Your task to perform on an android device: turn on showing notifications on the lock screen Image 0: 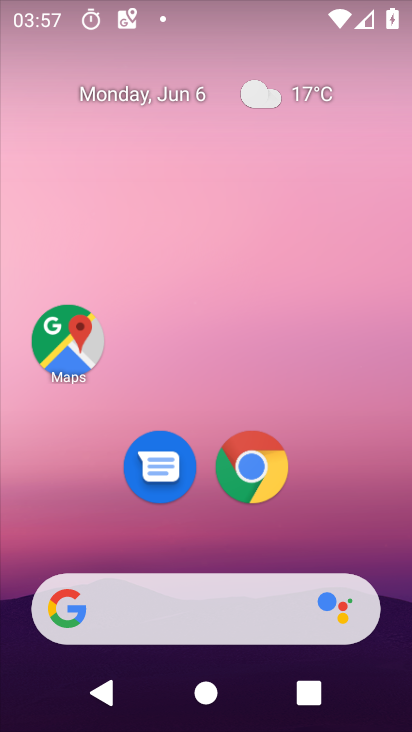
Step 0: press home button
Your task to perform on an android device: turn on showing notifications on the lock screen Image 1: 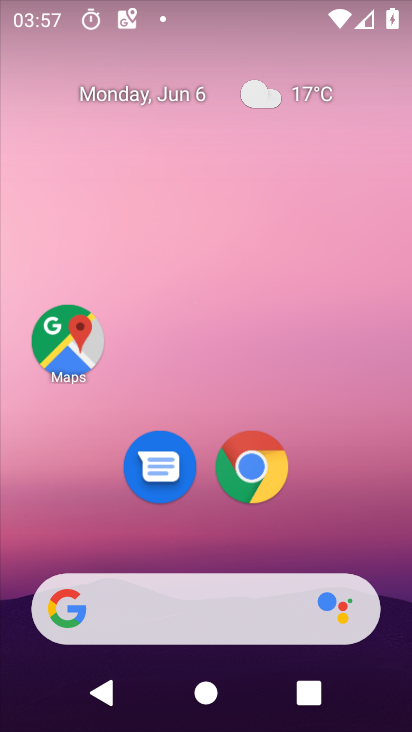
Step 1: drag from (205, 541) to (235, 21)
Your task to perform on an android device: turn on showing notifications on the lock screen Image 2: 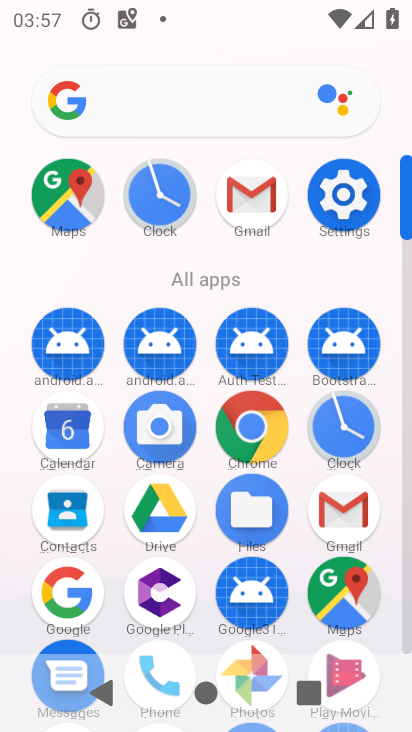
Step 2: click (342, 188)
Your task to perform on an android device: turn on showing notifications on the lock screen Image 3: 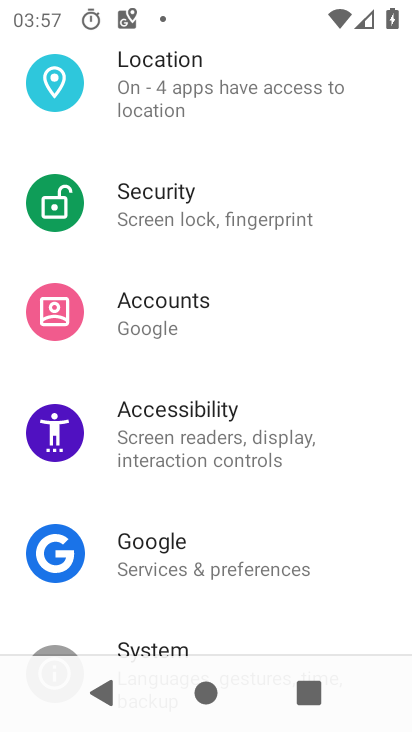
Step 3: drag from (219, 123) to (228, 632)
Your task to perform on an android device: turn on showing notifications on the lock screen Image 4: 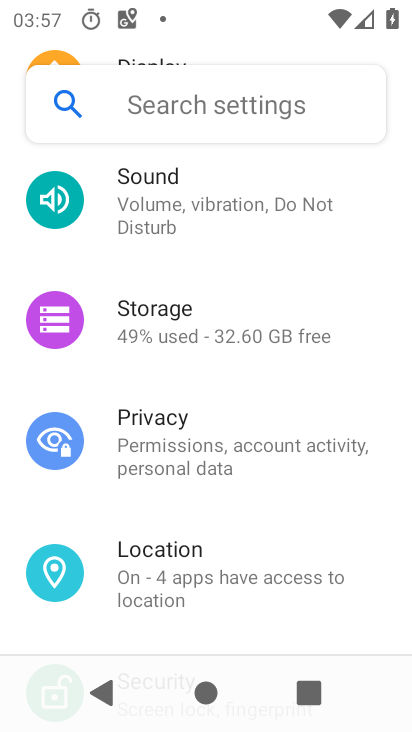
Step 4: drag from (201, 261) to (222, 553)
Your task to perform on an android device: turn on showing notifications on the lock screen Image 5: 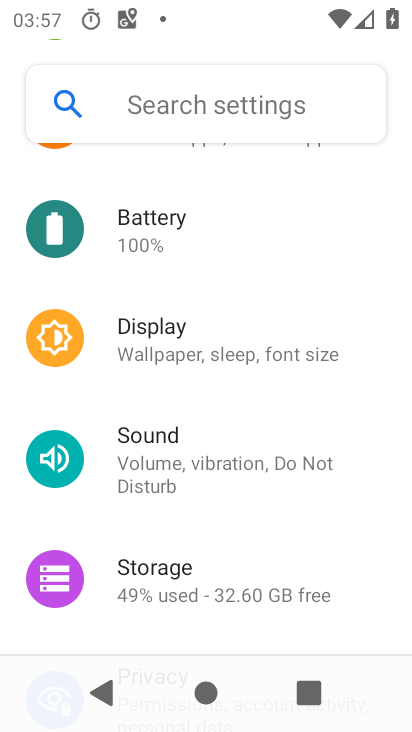
Step 5: drag from (188, 236) to (227, 528)
Your task to perform on an android device: turn on showing notifications on the lock screen Image 6: 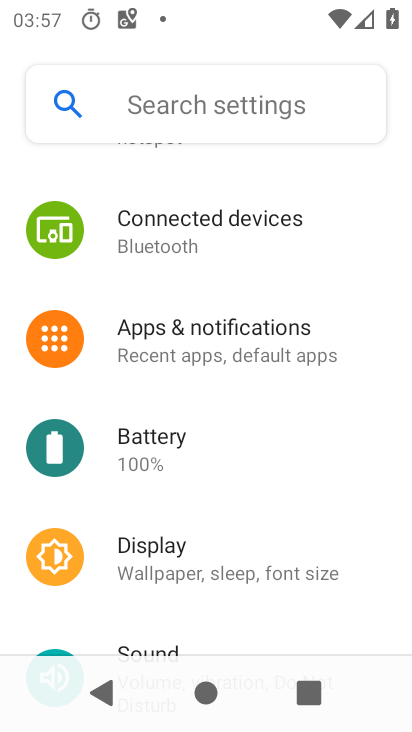
Step 6: click (231, 335)
Your task to perform on an android device: turn on showing notifications on the lock screen Image 7: 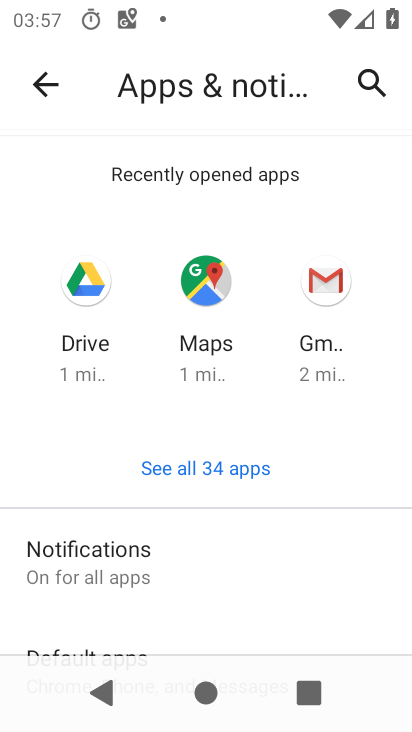
Step 7: click (175, 556)
Your task to perform on an android device: turn on showing notifications on the lock screen Image 8: 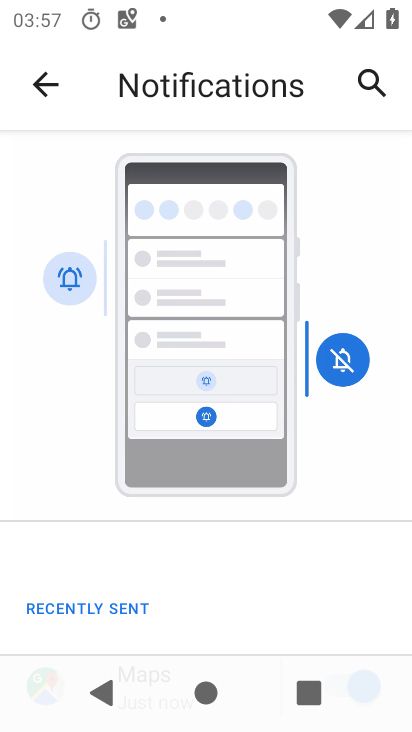
Step 8: drag from (216, 597) to (256, 237)
Your task to perform on an android device: turn on showing notifications on the lock screen Image 9: 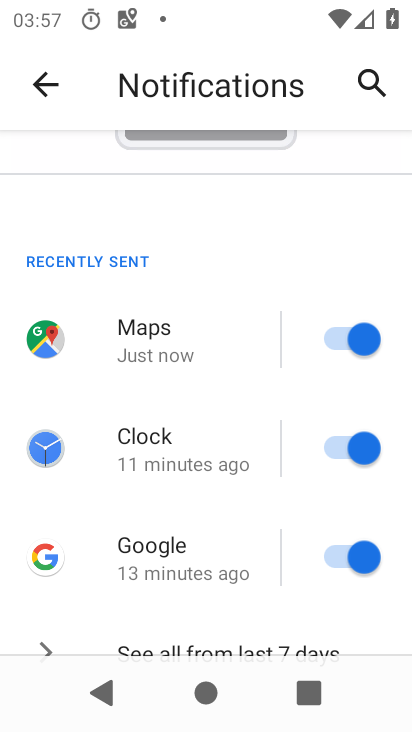
Step 9: drag from (240, 624) to (281, 207)
Your task to perform on an android device: turn on showing notifications on the lock screen Image 10: 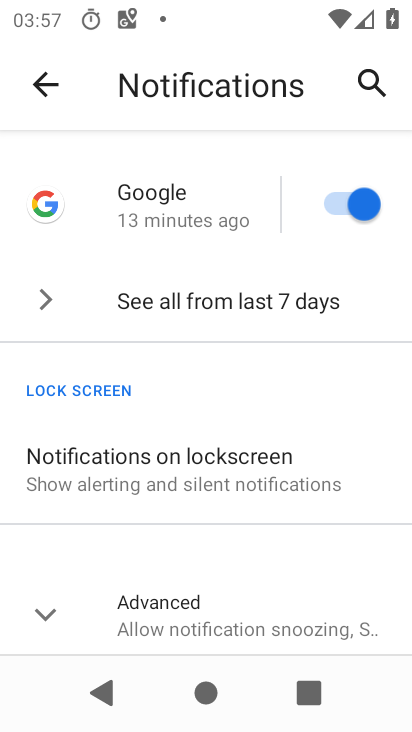
Step 10: click (204, 467)
Your task to perform on an android device: turn on showing notifications on the lock screen Image 11: 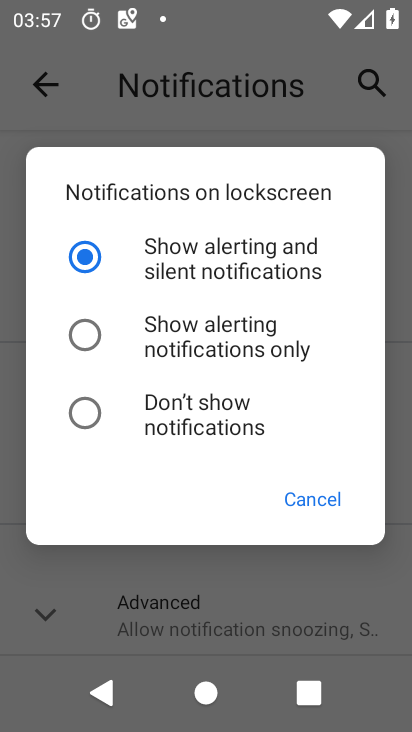
Step 11: click (78, 325)
Your task to perform on an android device: turn on showing notifications on the lock screen Image 12: 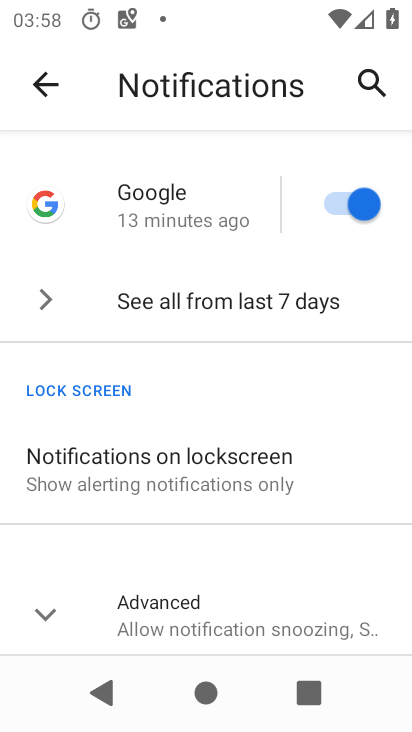
Step 12: task complete